Your task to perform on an android device: check the backup settings in the google photos Image 0: 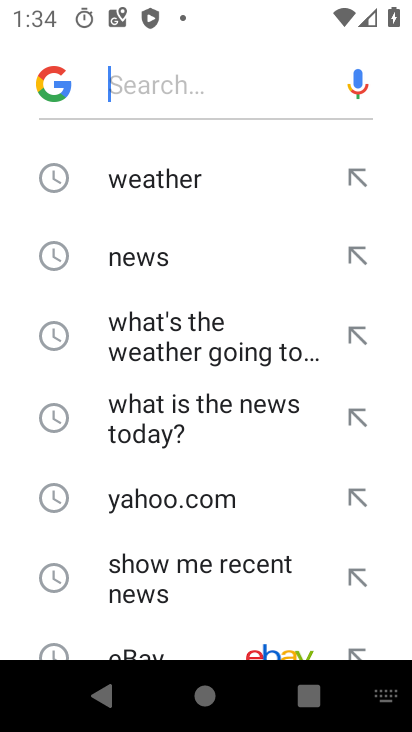
Step 0: press home button
Your task to perform on an android device: check the backup settings in the google photos Image 1: 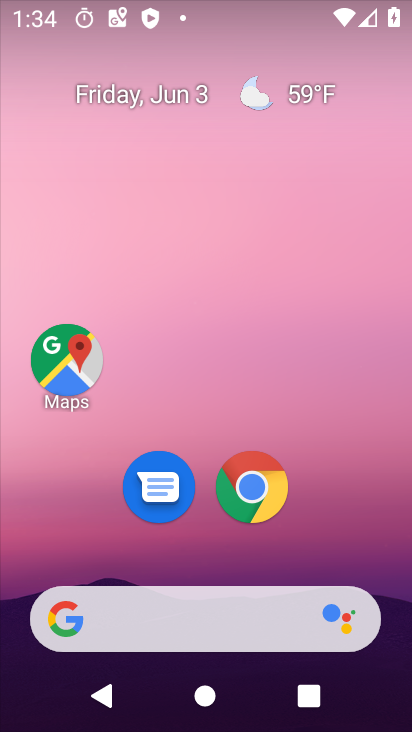
Step 1: drag from (207, 531) to (217, 103)
Your task to perform on an android device: check the backup settings in the google photos Image 2: 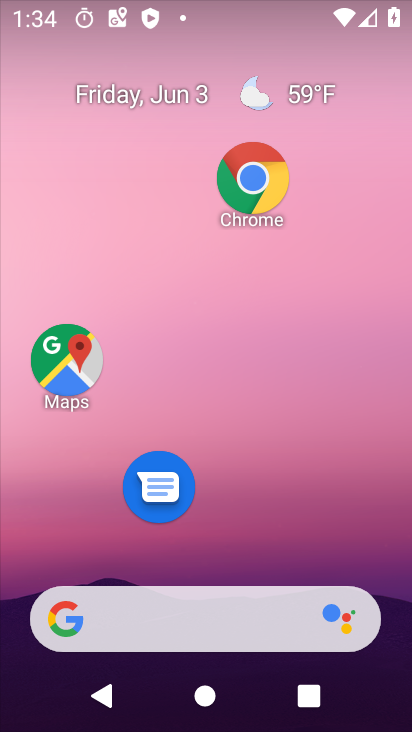
Step 2: drag from (303, 547) to (336, 25)
Your task to perform on an android device: check the backup settings in the google photos Image 3: 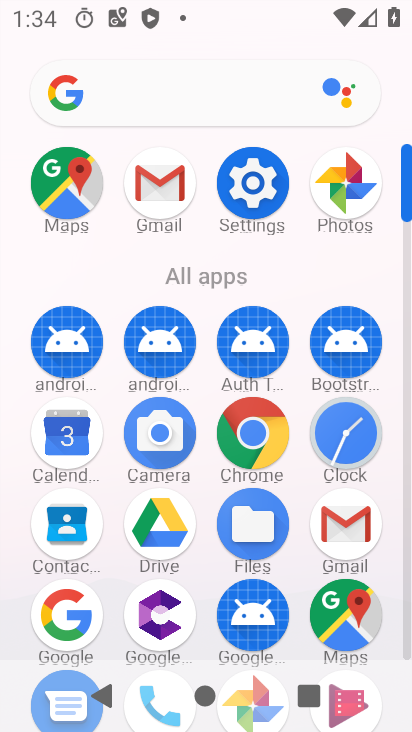
Step 3: click (342, 178)
Your task to perform on an android device: check the backup settings in the google photos Image 4: 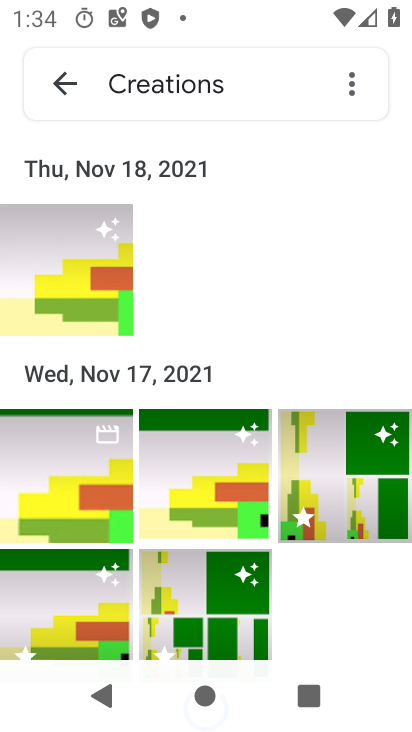
Step 4: click (66, 84)
Your task to perform on an android device: check the backup settings in the google photos Image 5: 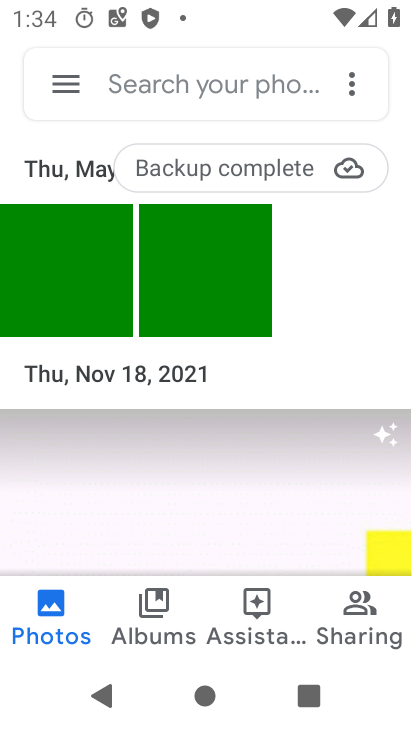
Step 5: click (68, 78)
Your task to perform on an android device: check the backup settings in the google photos Image 6: 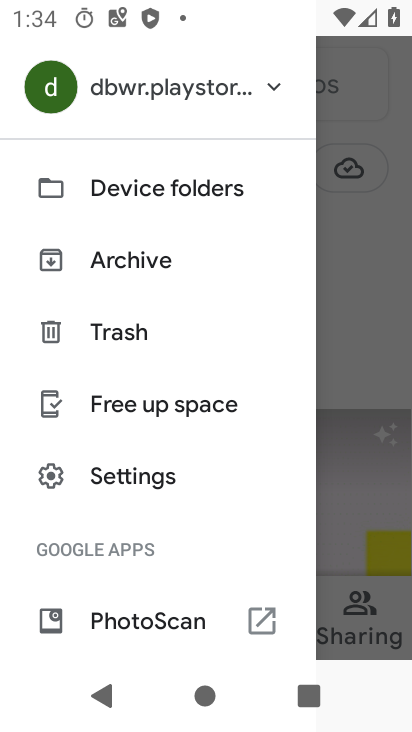
Step 6: click (186, 477)
Your task to perform on an android device: check the backup settings in the google photos Image 7: 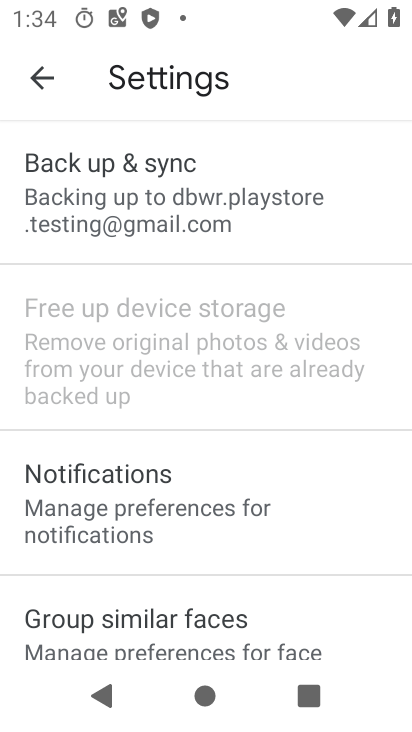
Step 7: click (222, 175)
Your task to perform on an android device: check the backup settings in the google photos Image 8: 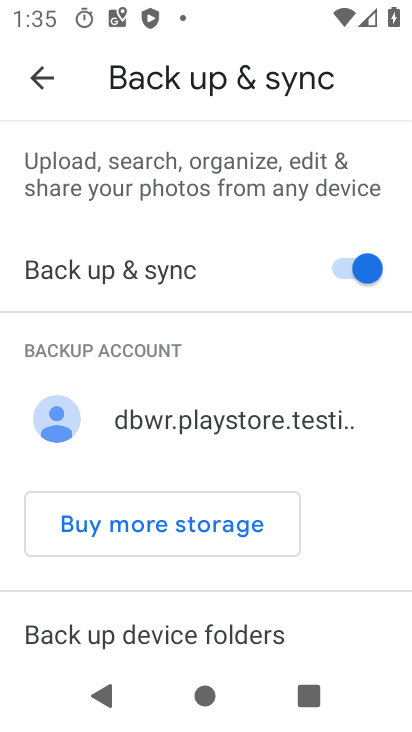
Step 8: task complete